Your task to perform on an android device: Search for seafood restaurants on Google Maps Image 0: 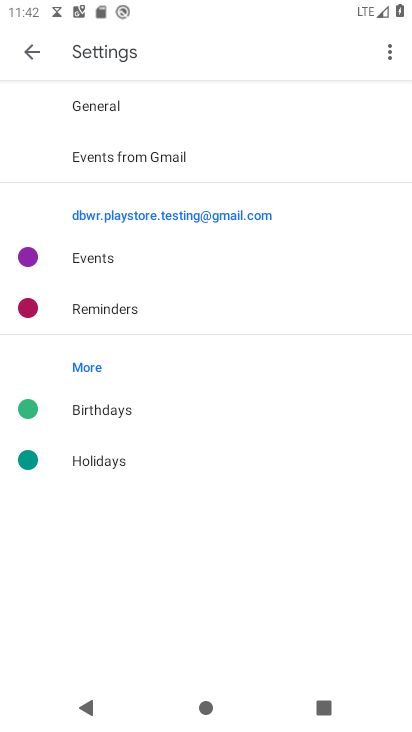
Step 0: press home button
Your task to perform on an android device: Search for seafood restaurants on Google Maps Image 1: 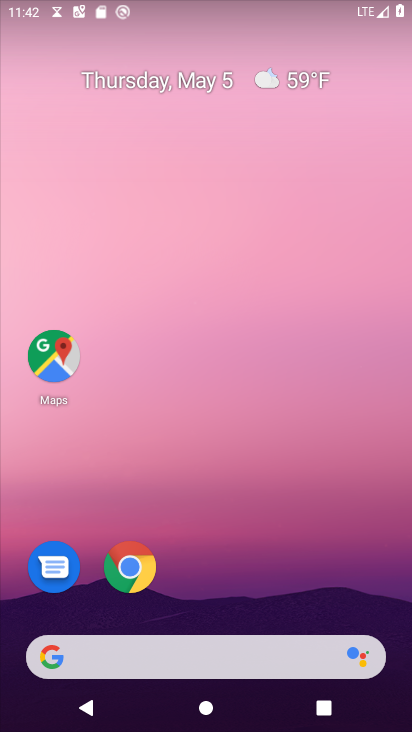
Step 1: click (51, 357)
Your task to perform on an android device: Search for seafood restaurants on Google Maps Image 2: 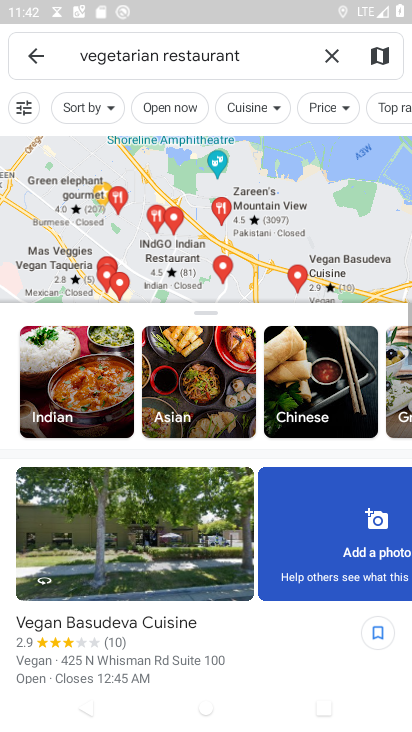
Step 2: click (329, 48)
Your task to perform on an android device: Search for seafood restaurants on Google Maps Image 3: 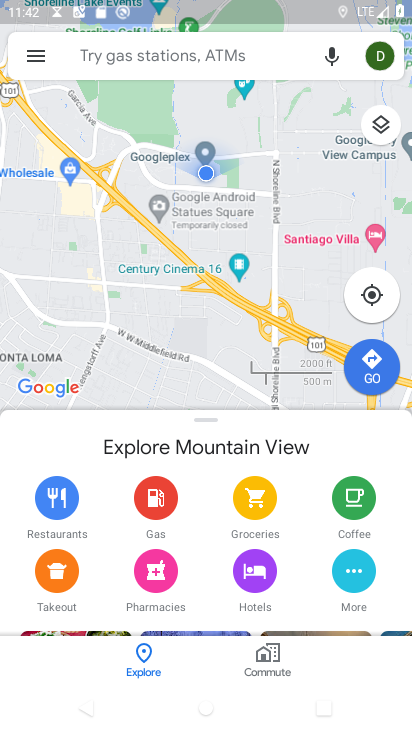
Step 3: click (79, 53)
Your task to perform on an android device: Search for seafood restaurants on Google Maps Image 4: 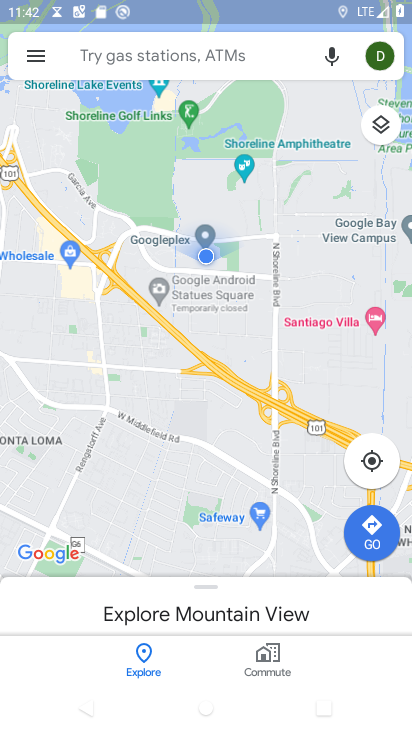
Step 4: click (104, 51)
Your task to perform on an android device: Search for seafood restaurants on Google Maps Image 5: 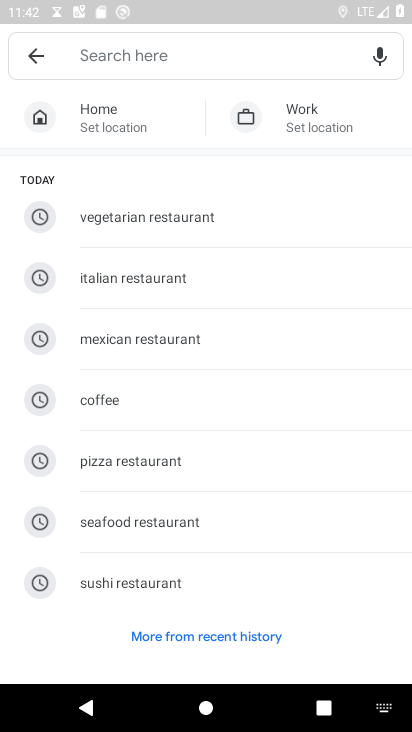
Step 5: type "seafood restaurant"
Your task to perform on an android device: Search for seafood restaurants on Google Maps Image 6: 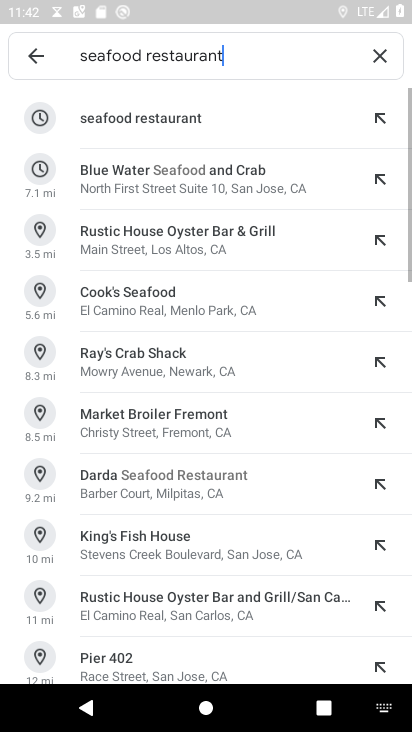
Step 6: click (202, 118)
Your task to perform on an android device: Search for seafood restaurants on Google Maps Image 7: 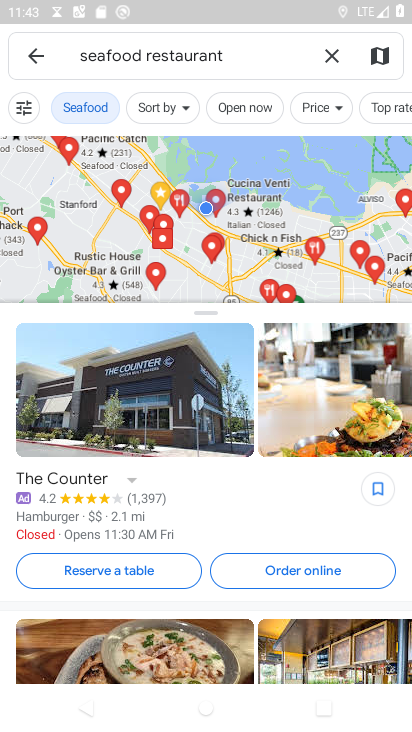
Step 7: task complete